Your task to perform on an android device: What's the weather today? Image 0: 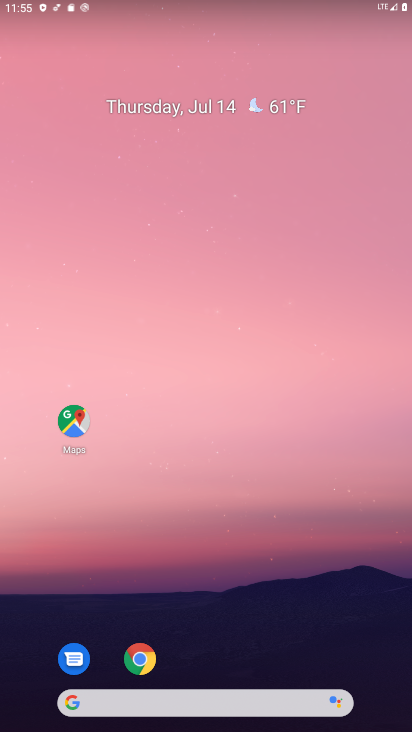
Step 0: drag from (257, 703) to (233, 179)
Your task to perform on an android device: What's the weather today? Image 1: 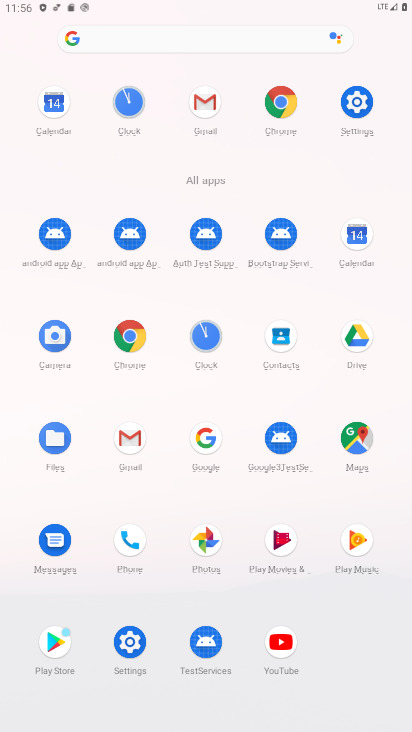
Step 1: click (205, 437)
Your task to perform on an android device: What's the weather today? Image 2: 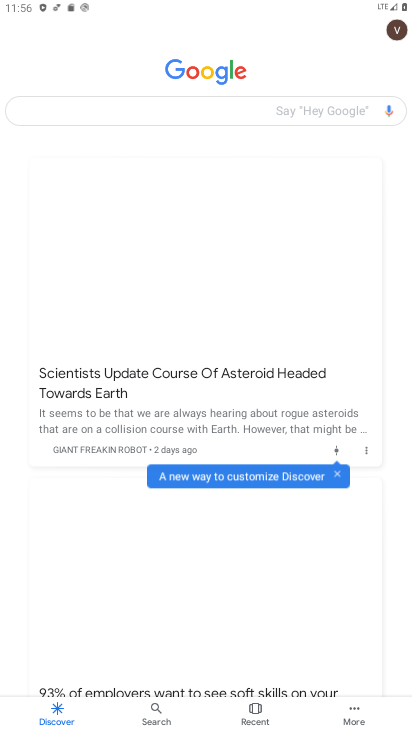
Step 2: click (174, 114)
Your task to perform on an android device: What's the weather today? Image 3: 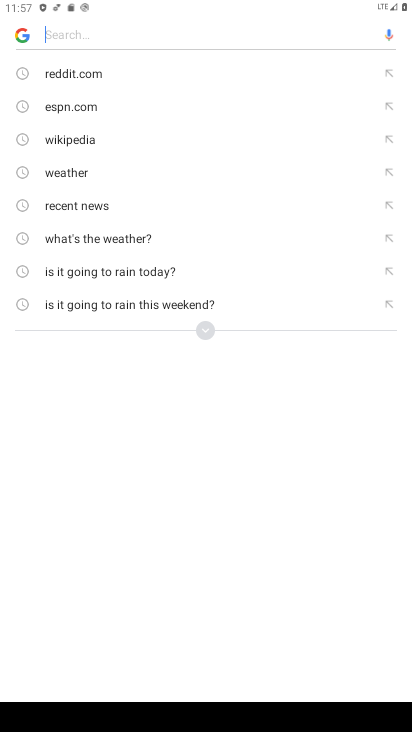
Step 3: type "What's the weather today?"
Your task to perform on an android device: What's the weather today? Image 4: 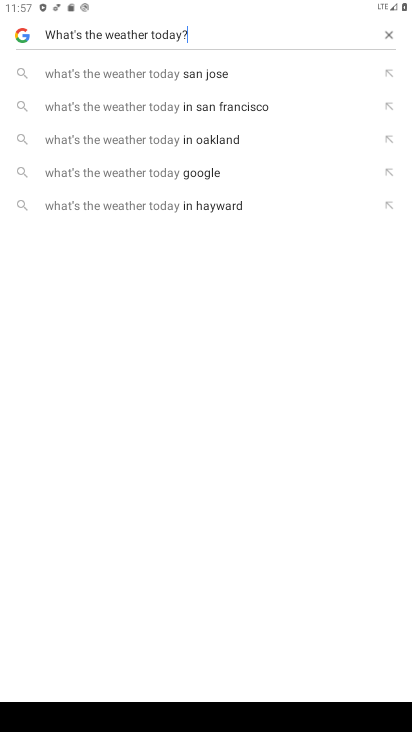
Step 4: click (147, 77)
Your task to perform on an android device: What's the weather today? Image 5: 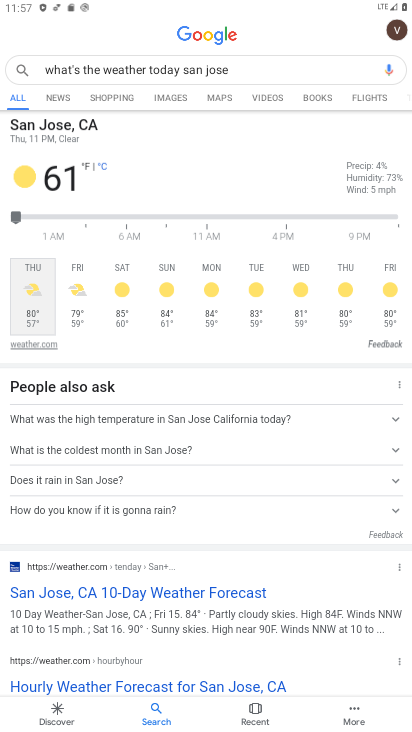
Step 5: task complete